Your task to perform on an android device: Go to display settings Image 0: 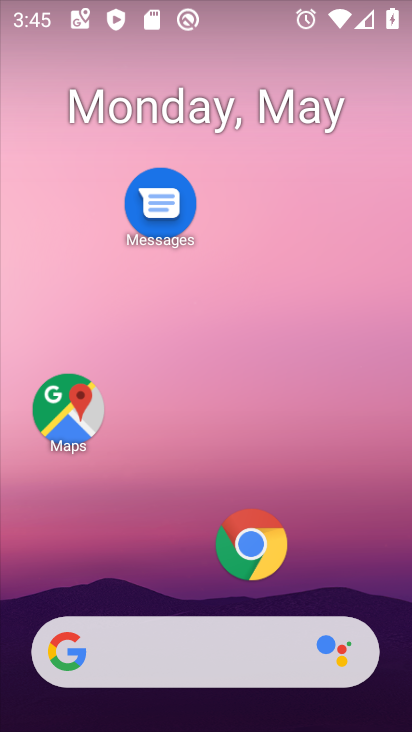
Step 0: drag from (202, 584) to (165, 107)
Your task to perform on an android device: Go to display settings Image 1: 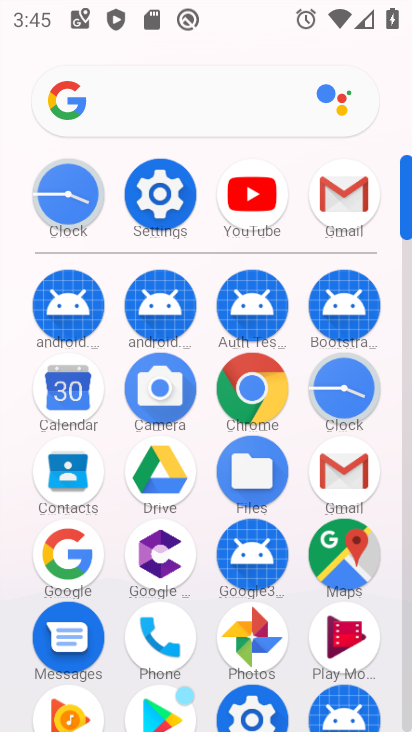
Step 1: click (162, 219)
Your task to perform on an android device: Go to display settings Image 2: 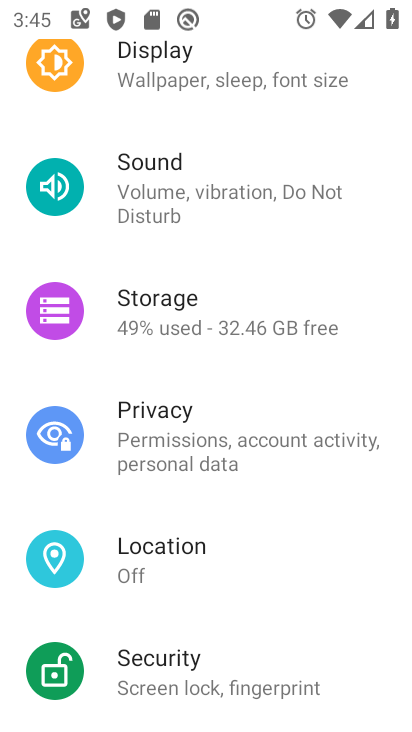
Step 2: drag from (171, 195) to (195, 436)
Your task to perform on an android device: Go to display settings Image 3: 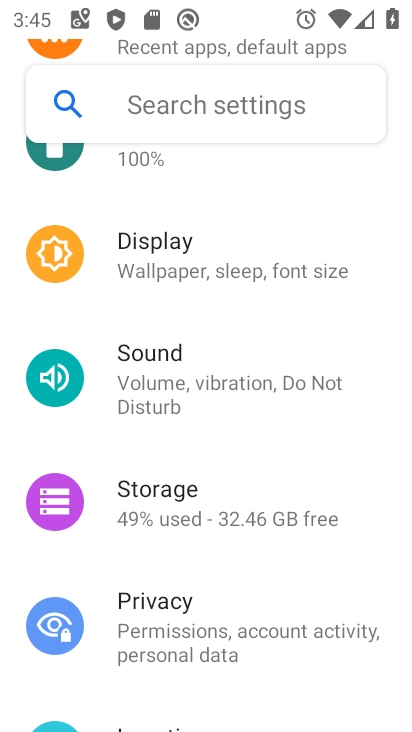
Step 3: click (153, 276)
Your task to perform on an android device: Go to display settings Image 4: 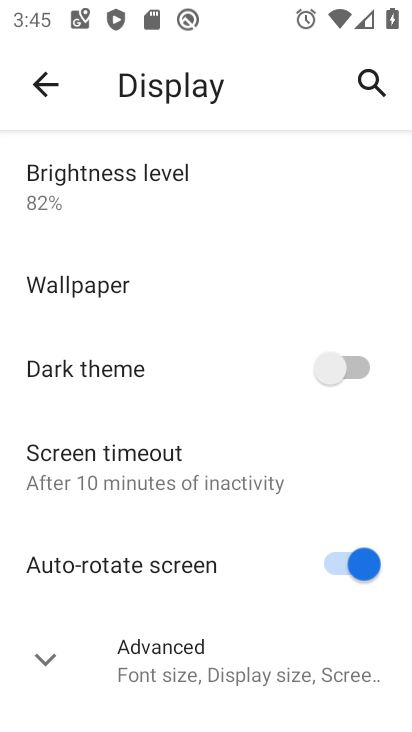
Step 4: task complete